Your task to perform on an android device: Open settings Image 0: 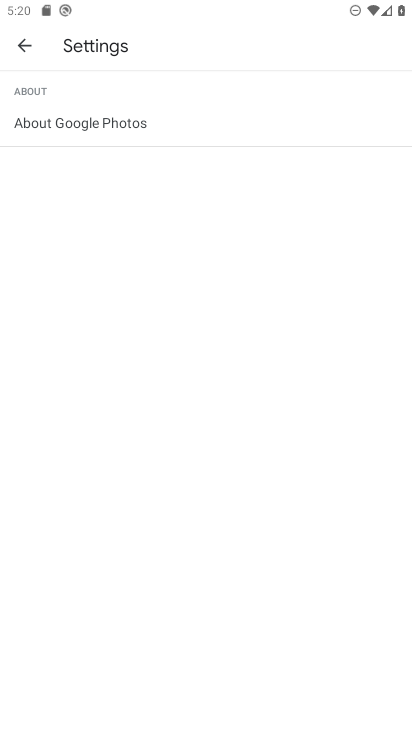
Step 0: press home button
Your task to perform on an android device: Open settings Image 1: 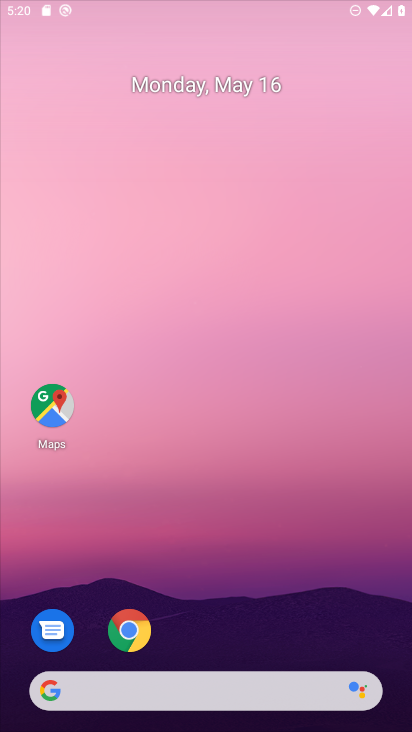
Step 1: drag from (275, 582) to (318, 0)
Your task to perform on an android device: Open settings Image 2: 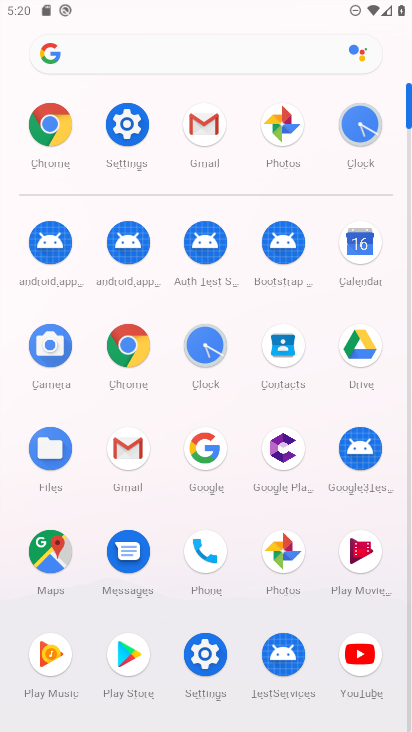
Step 2: click (139, 130)
Your task to perform on an android device: Open settings Image 3: 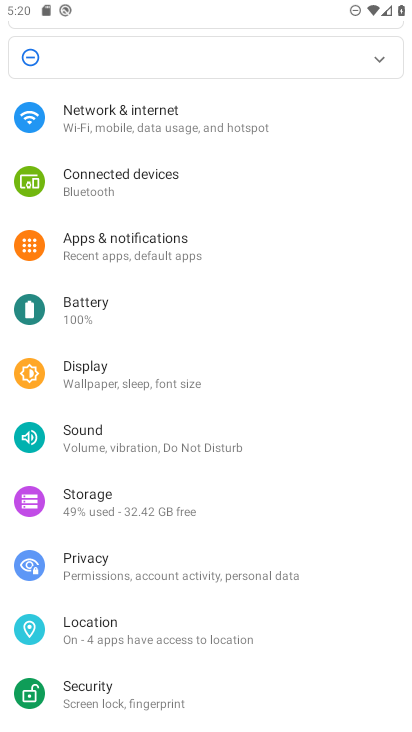
Step 3: task complete